Your task to perform on an android device: install app "Chime – Mobile Banking" Image 0: 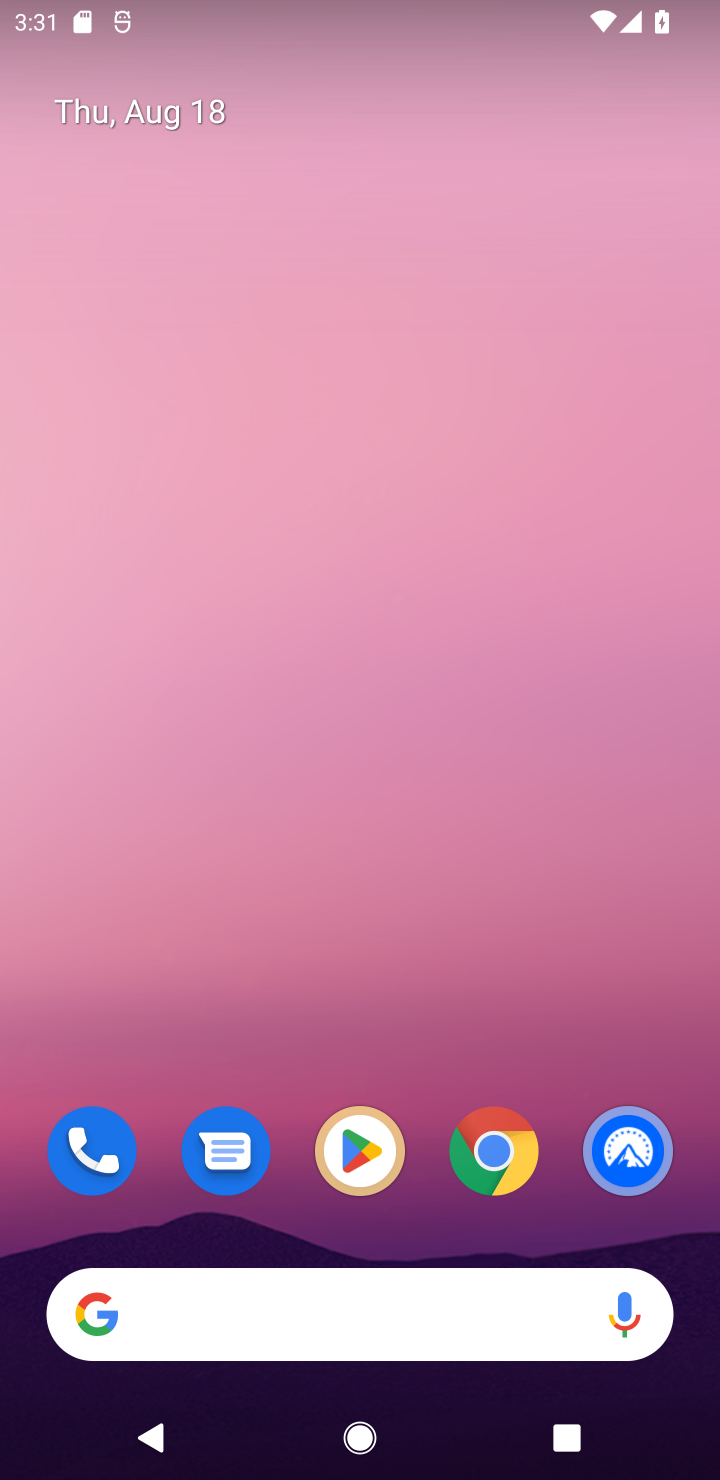
Step 0: click (375, 1178)
Your task to perform on an android device: install app "Chime – Mobile Banking" Image 1: 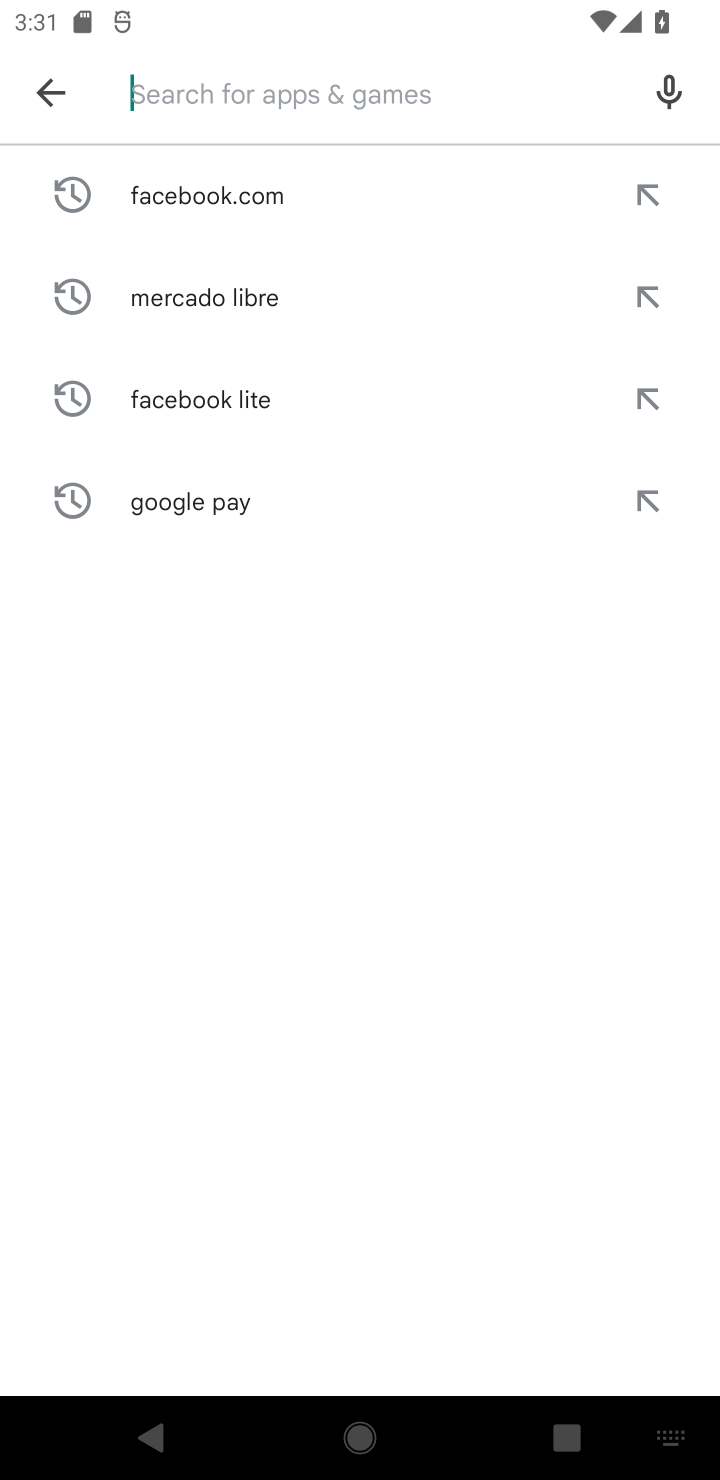
Step 1: type "chime"
Your task to perform on an android device: install app "Chime – Mobile Banking" Image 2: 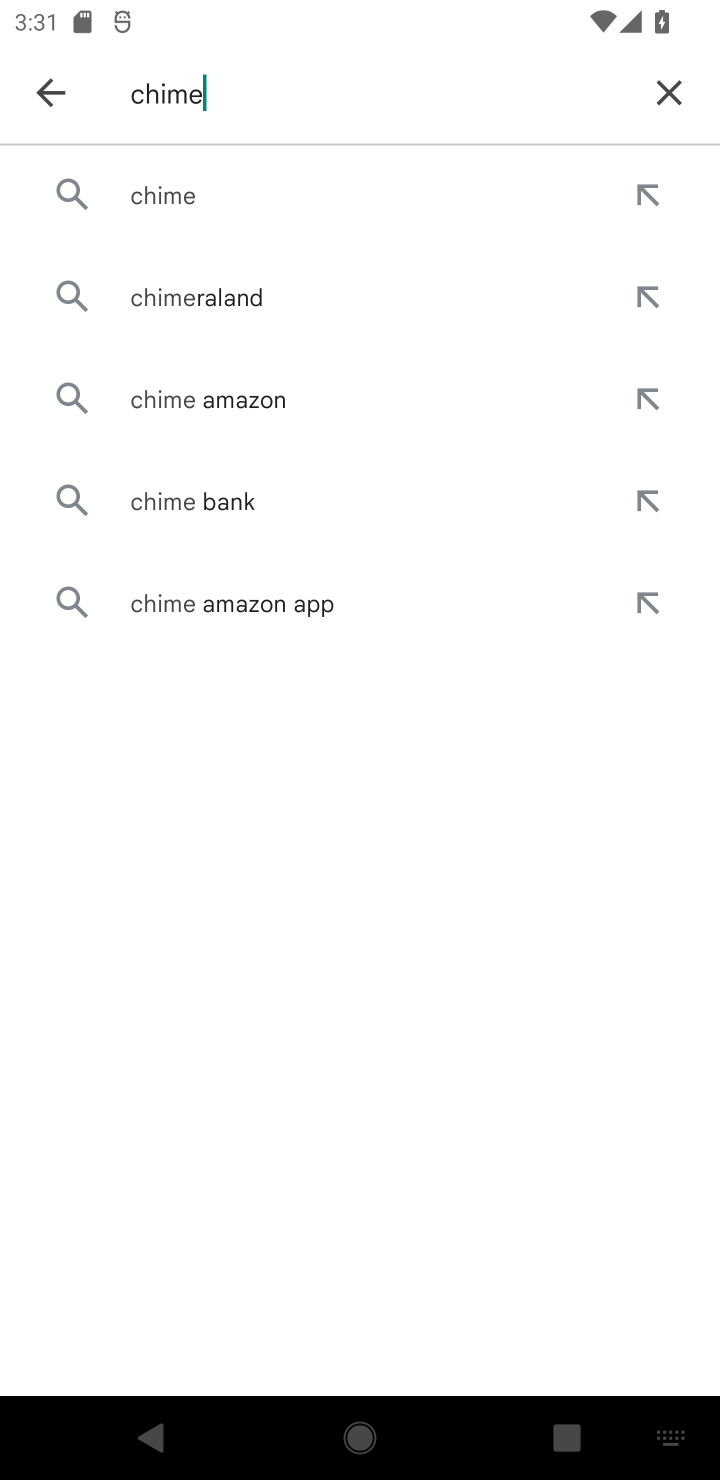
Step 2: click (396, 182)
Your task to perform on an android device: install app "Chime – Mobile Banking" Image 3: 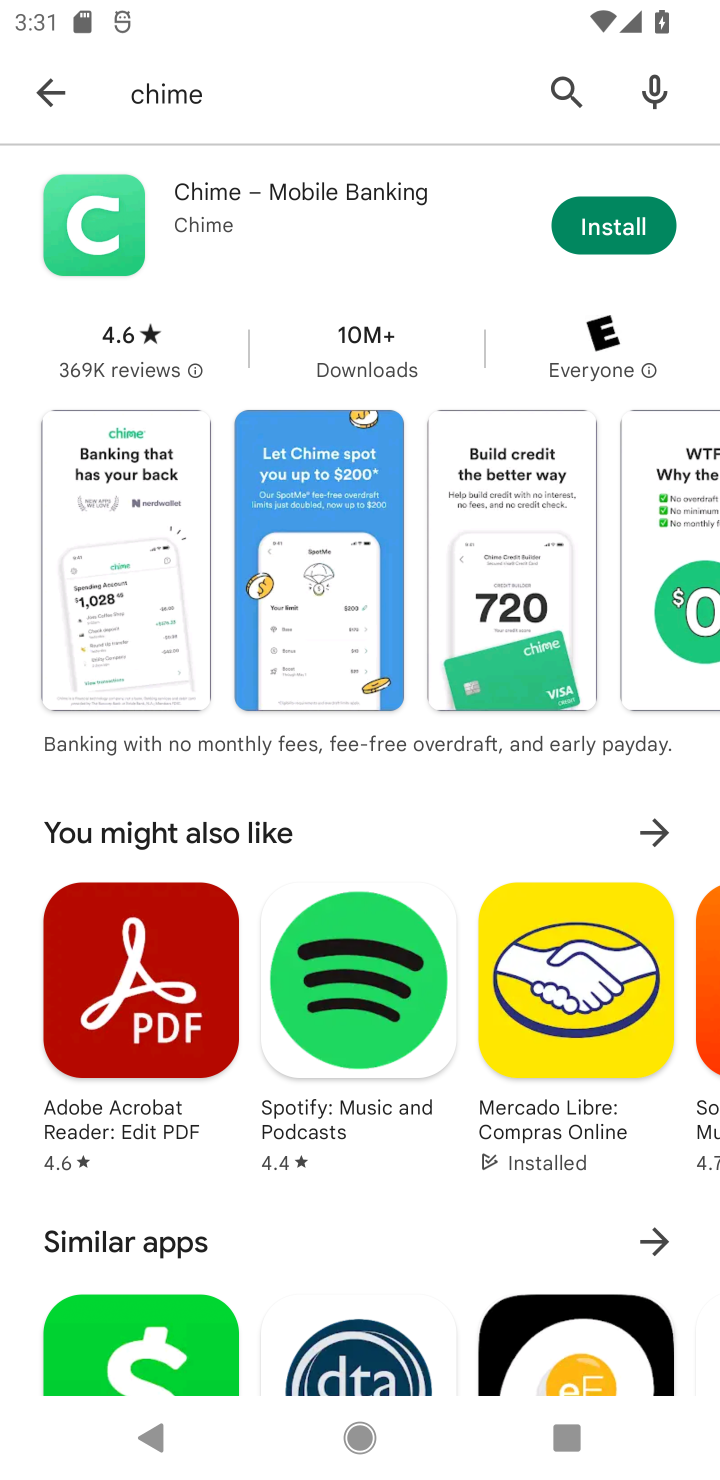
Step 3: click (584, 228)
Your task to perform on an android device: install app "Chime – Mobile Banking" Image 4: 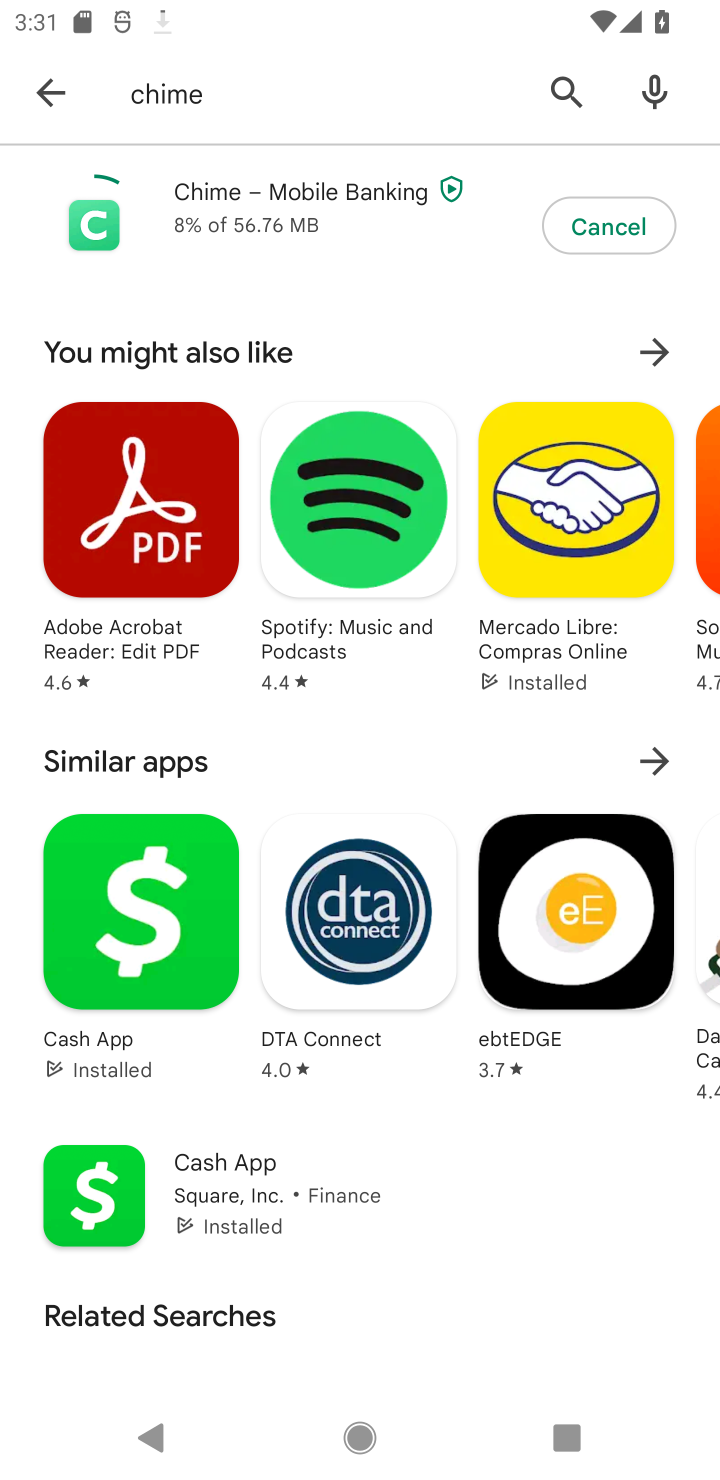
Step 4: task complete